Your task to perform on an android device: Go to notification settings Image 0: 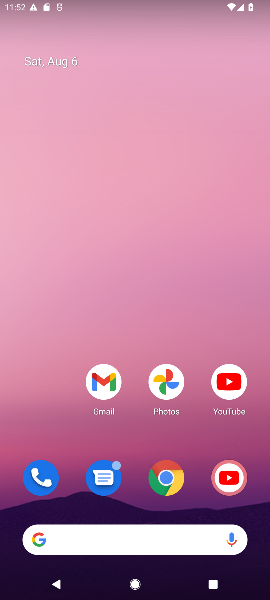
Step 0: drag from (130, 515) to (108, 181)
Your task to perform on an android device: Go to notification settings Image 1: 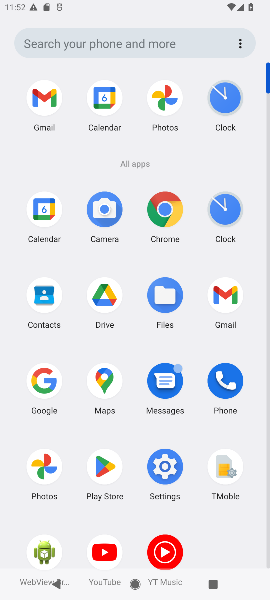
Step 1: click (166, 476)
Your task to perform on an android device: Go to notification settings Image 2: 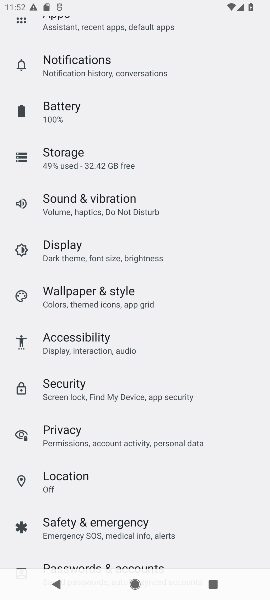
Step 2: click (84, 64)
Your task to perform on an android device: Go to notification settings Image 3: 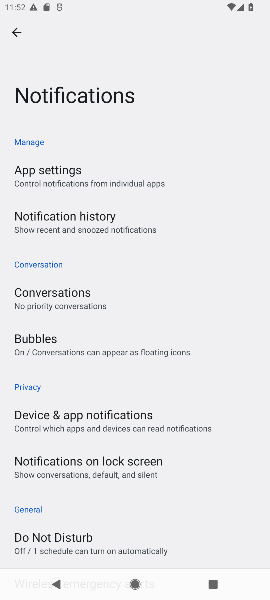
Step 3: task complete